Your task to perform on an android device: change your default location settings in chrome Image 0: 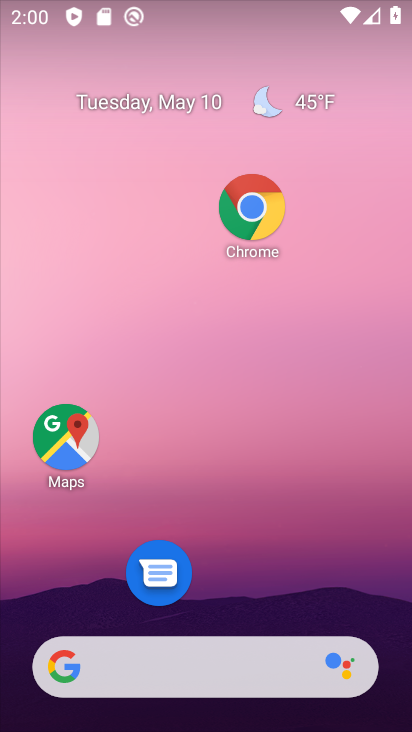
Step 0: click (263, 210)
Your task to perform on an android device: change your default location settings in chrome Image 1: 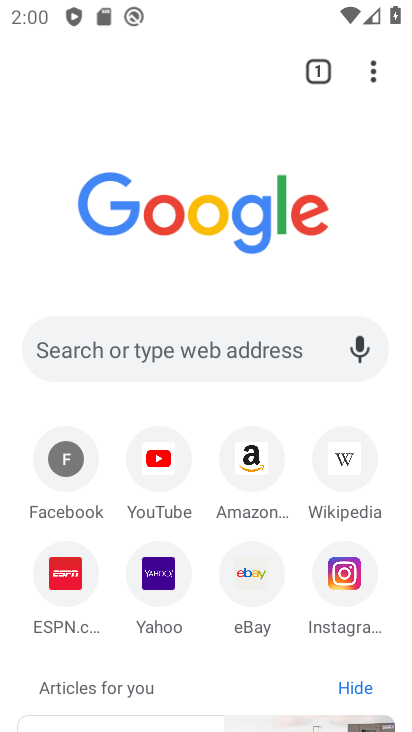
Step 1: click (372, 74)
Your task to perform on an android device: change your default location settings in chrome Image 2: 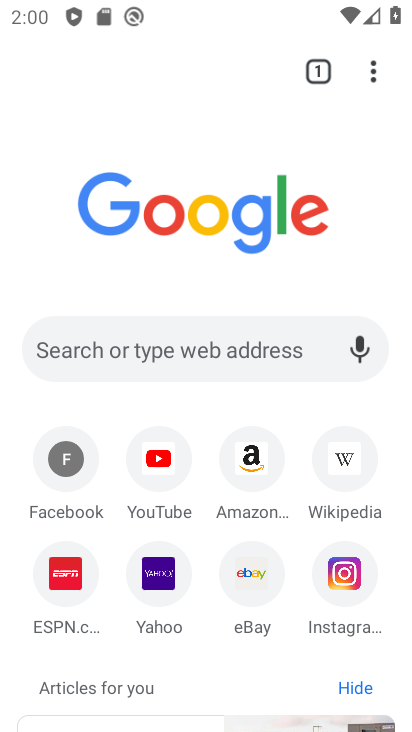
Step 2: click (372, 80)
Your task to perform on an android device: change your default location settings in chrome Image 3: 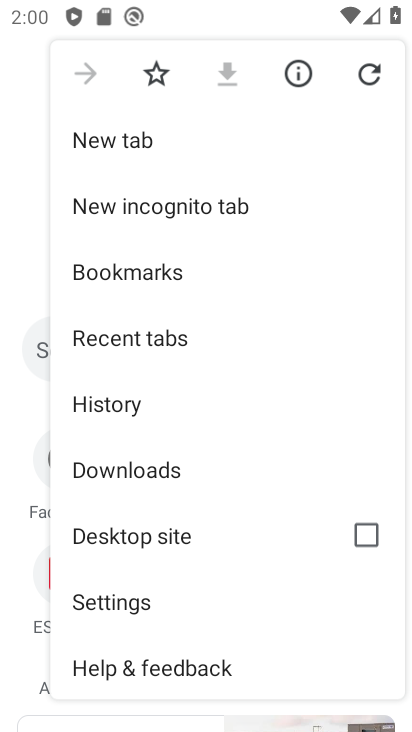
Step 3: click (123, 601)
Your task to perform on an android device: change your default location settings in chrome Image 4: 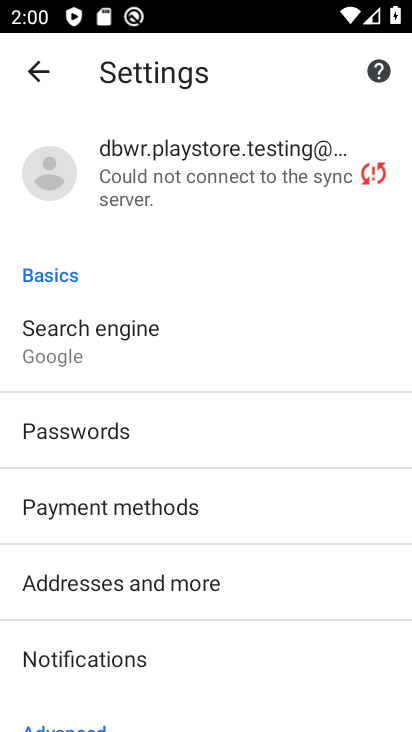
Step 4: click (167, 253)
Your task to perform on an android device: change your default location settings in chrome Image 5: 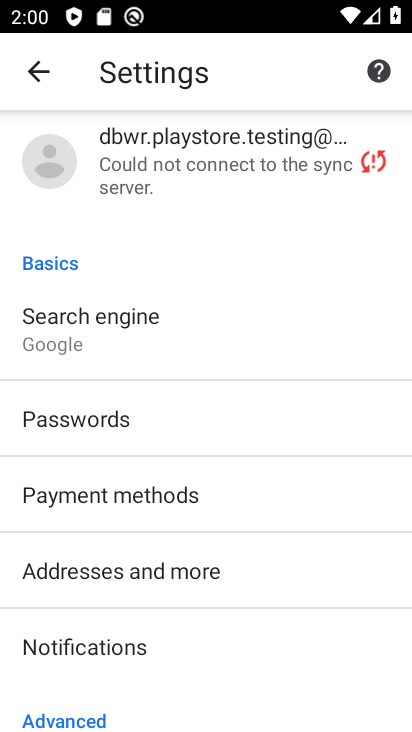
Step 5: click (218, 155)
Your task to perform on an android device: change your default location settings in chrome Image 6: 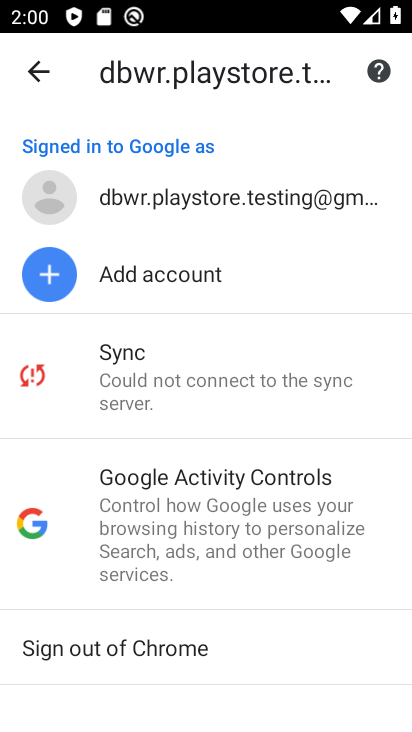
Step 6: drag from (152, 635) to (182, 251)
Your task to perform on an android device: change your default location settings in chrome Image 7: 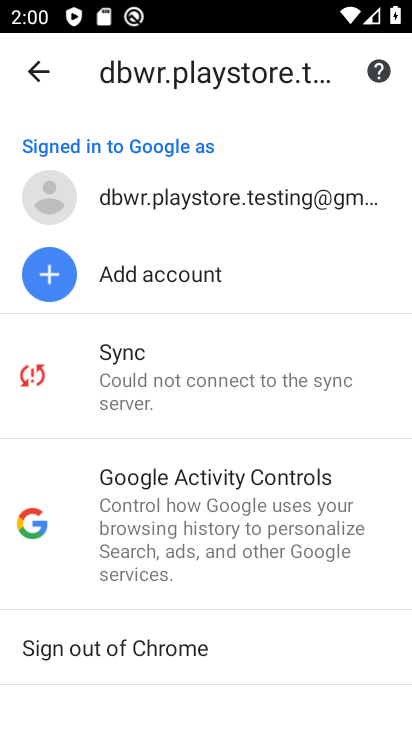
Step 7: drag from (139, 588) to (181, 132)
Your task to perform on an android device: change your default location settings in chrome Image 8: 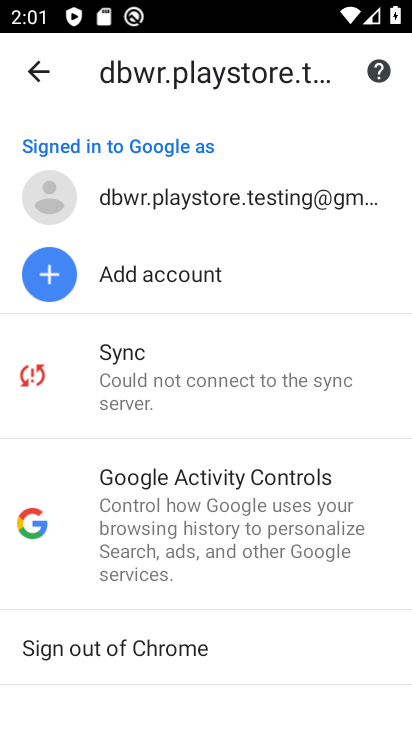
Step 8: click (42, 64)
Your task to perform on an android device: change your default location settings in chrome Image 9: 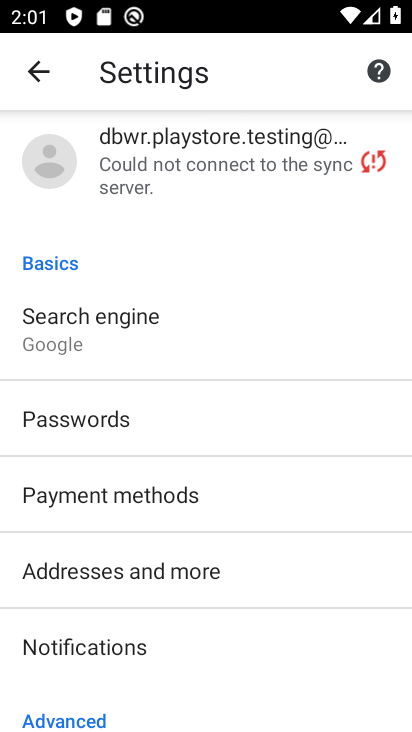
Step 9: drag from (136, 555) to (166, 148)
Your task to perform on an android device: change your default location settings in chrome Image 10: 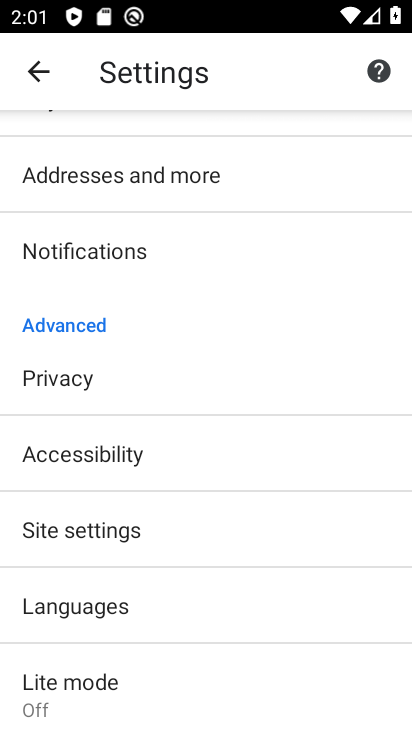
Step 10: click (79, 541)
Your task to perform on an android device: change your default location settings in chrome Image 11: 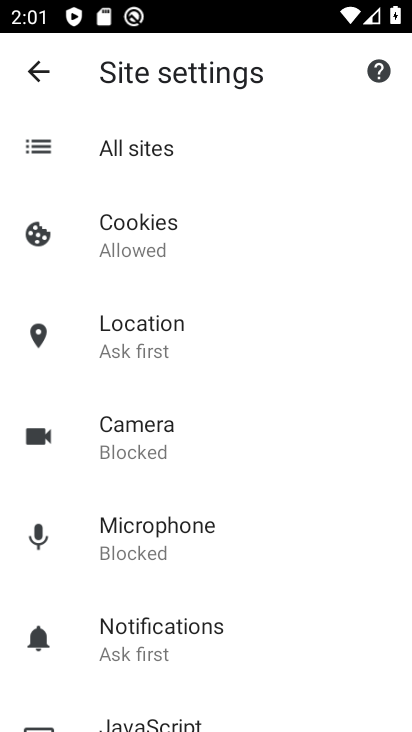
Step 11: click (167, 342)
Your task to perform on an android device: change your default location settings in chrome Image 12: 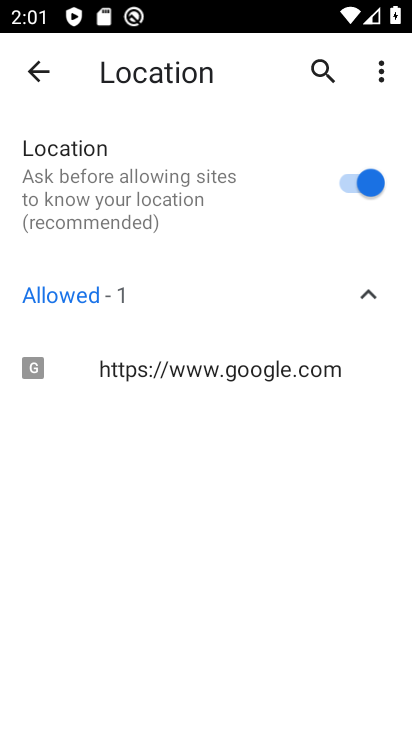
Step 12: click (309, 195)
Your task to perform on an android device: change your default location settings in chrome Image 13: 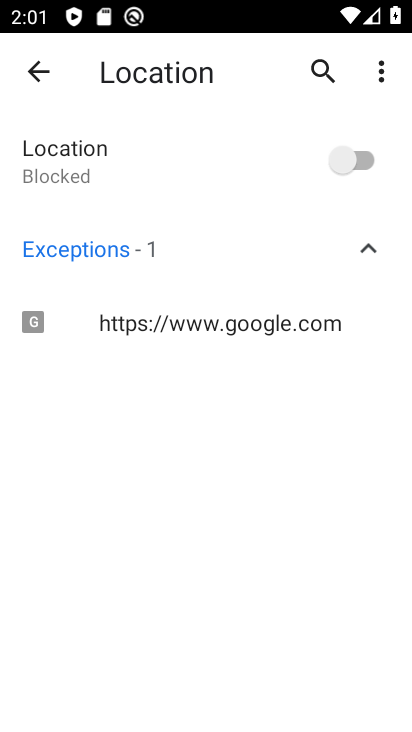
Step 13: task complete